Your task to perform on an android device: Show me popular games on the Play Store Image 0: 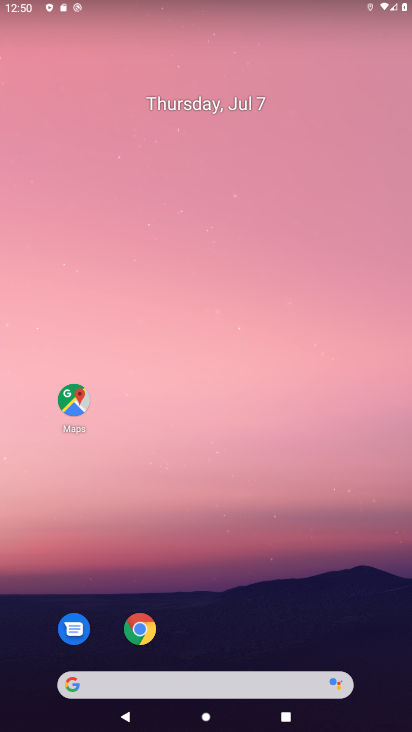
Step 0: drag from (195, 607) to (205, 92)
Your task to perform on an android device: Show me popular games on the Play Store Image 1: 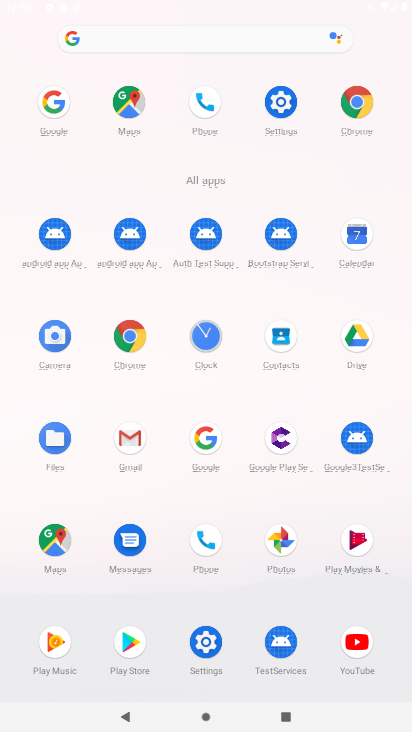
Step 1: click (120, 651)
Your task to perform on an android device: Show me popular games on the Play Store Image 2: 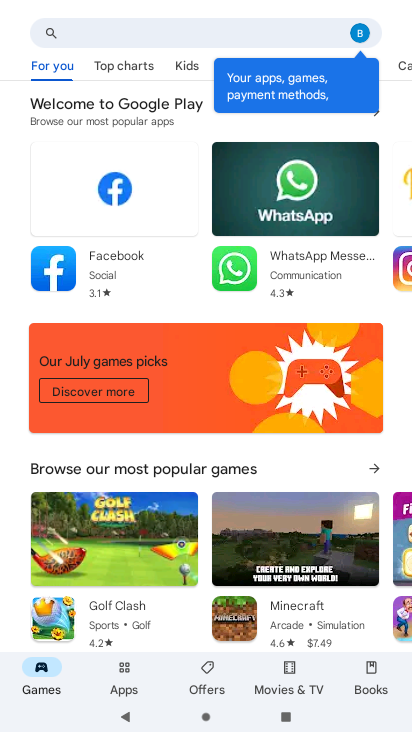
Step 2: click (257, 462)
Your task to perform on an android device: Show me popular games on the Play Store Image 3: 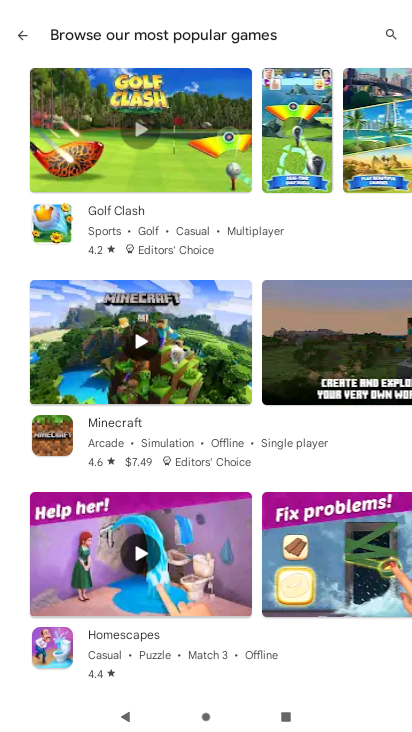
Step 3: task complete